Your task to perform on an android device: turn on priority inbox in the gmail app Image 0: 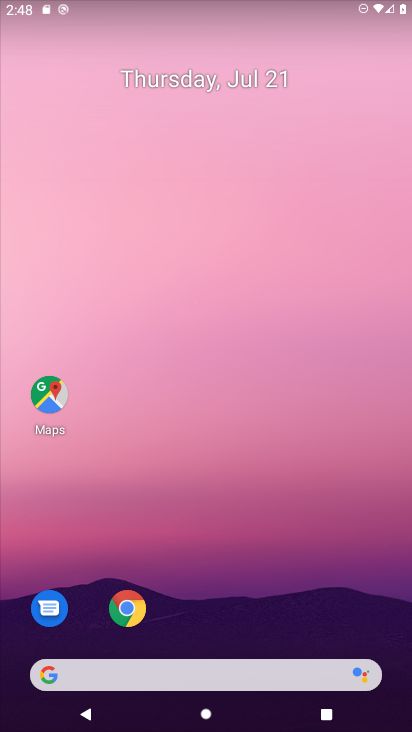
Step 0: drag from (182, 622) to (186, 195)
Your task to perform on an android device: turn on priority inbox in the gmail app Image 1: 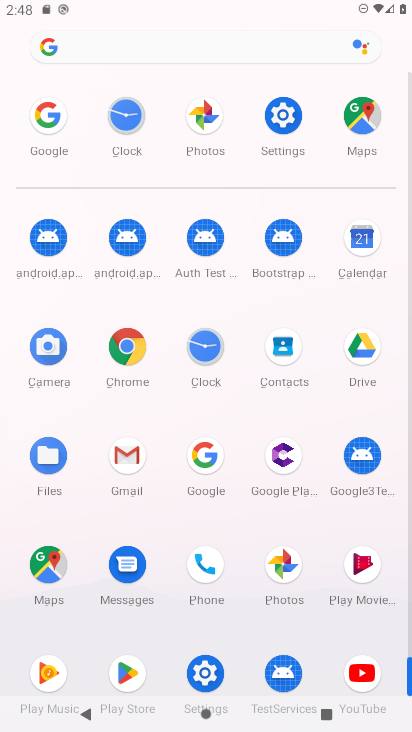
Step 1: click (135, 449)
Your task to perform on an android device: turn on priority inbox in the gmail app Image 2: 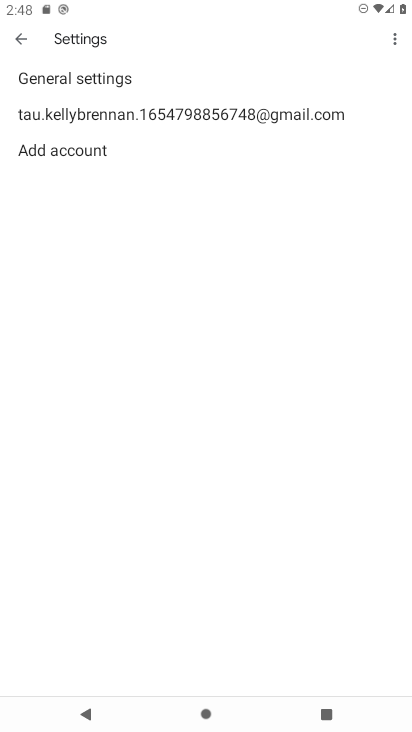
Step 2: click (99, 124)
Your task to perform on an android device: turn on priority inbox in the gmail app Image 3: 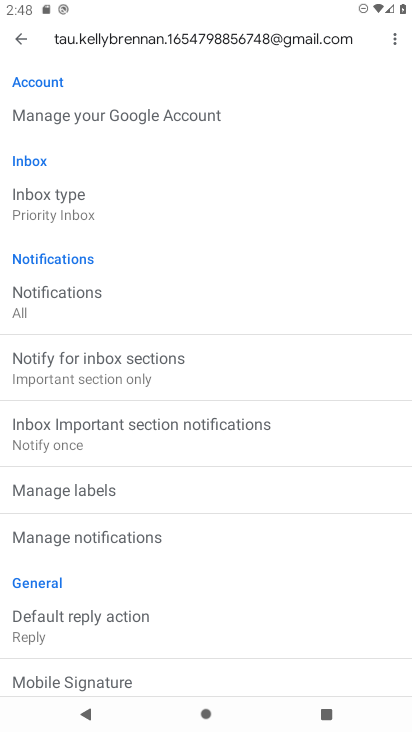
Step 3: click (86, 220)
Your task to perform on an android device: turn on priority inbox in the gmail app Image 4: 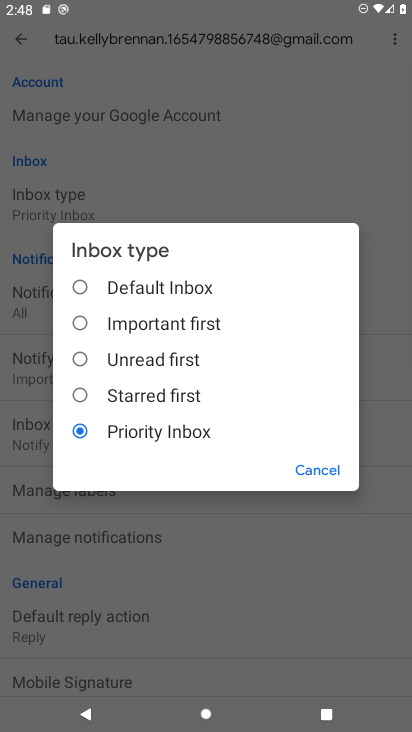
Step 4: task complete